Your task to perform on an android device: turn on airplane mode Image 0: 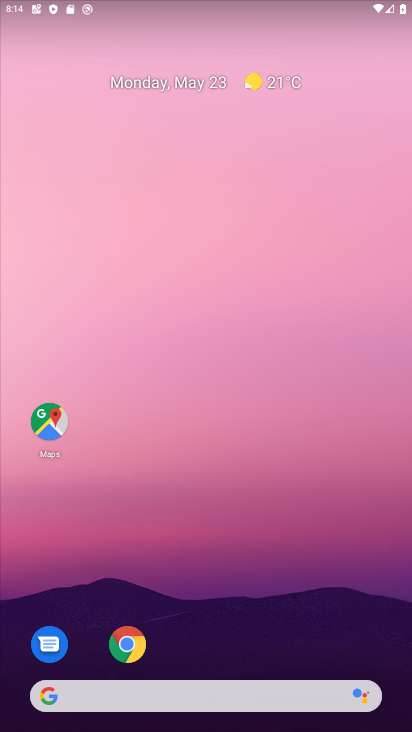
Step 0: drag from (177, 721) to (208, 0)
Your task to perform on an android device: turn on airplane mode Image 1: 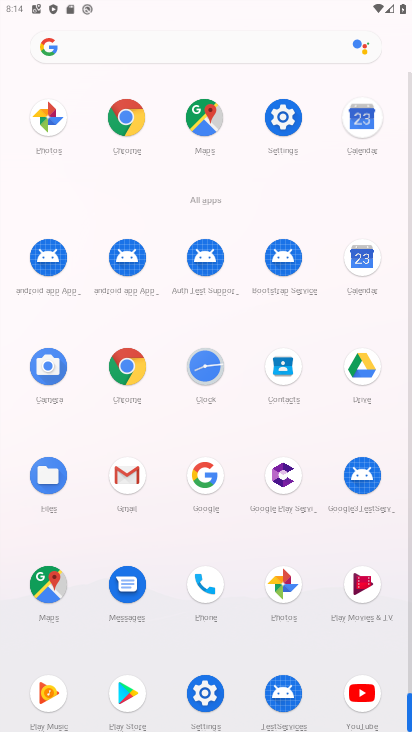
Step 1: click (286, 114)
Your task to perform on an android device: turn on airplane mode Image 2: 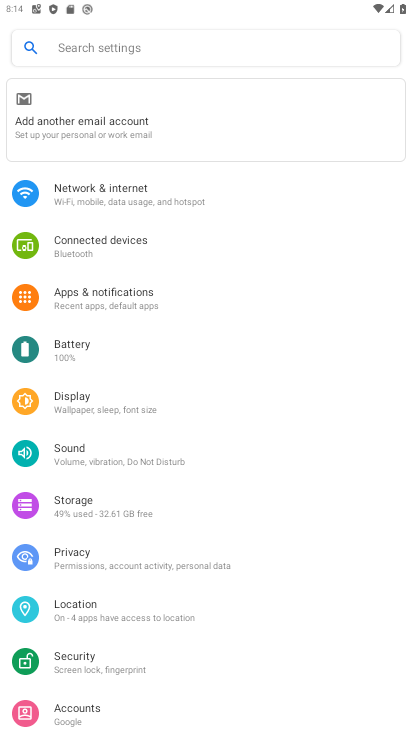
Step 2: click (217, 201)
Your task to perform on an android device: turn on airplane mode Image 3: 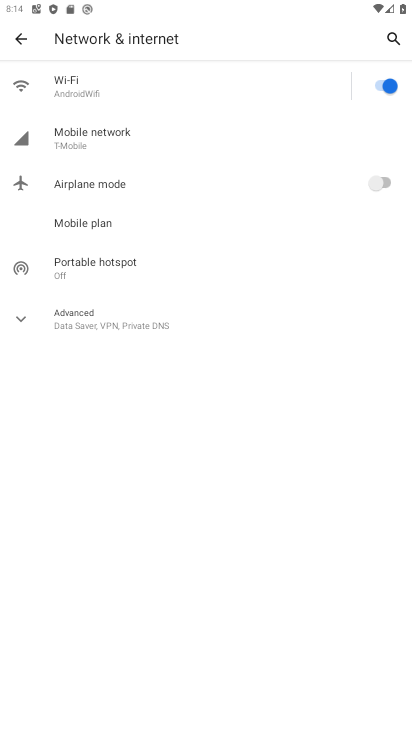
Step 3: click (380, 185)
Your task to perform on an android device: turn on airplane mode Image 4: 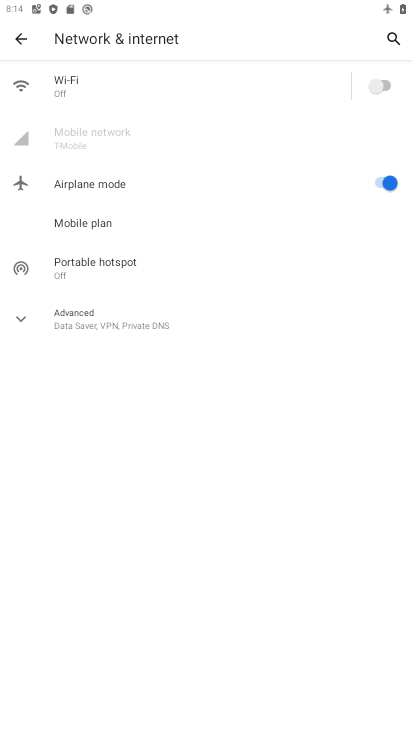
Step 4: task complete